Your task to perform on an android device: Open Chrome and go to the settings page Image 0: 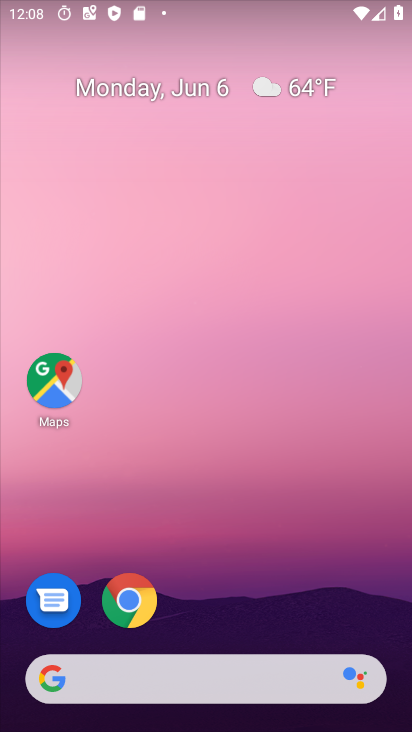
Step 0: drag from (263, 695) to (186, 153)
Your task to perform on an android device: Open Chrome and go to the settings page Image 1: 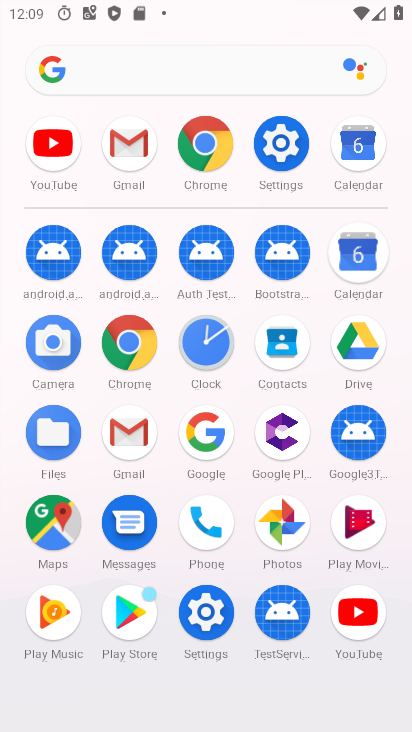
Step 1: click (205, 137)
Your task to perform on an android device: Open Chrome and go to the settings page Image 2: 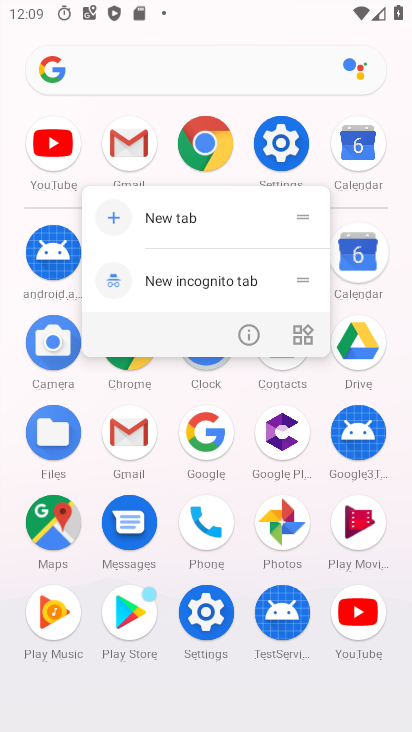
Step 2: click (211, 151)
Your task to perform on an android device: Open Chrome and go to the settings page Image 3: 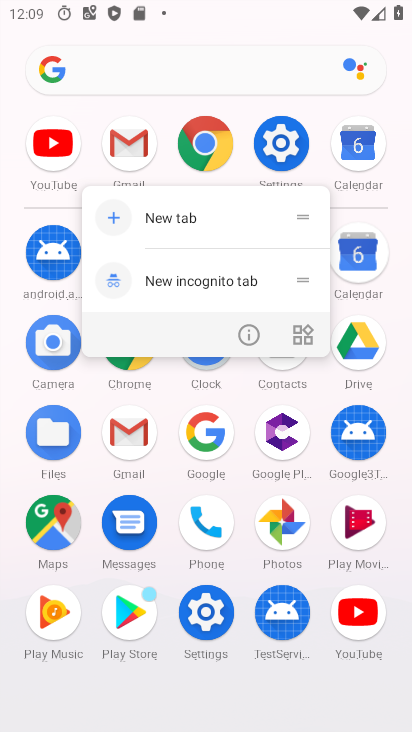
Step 3: click (210, 154)
Your task to perform on an android device: Open Chrome and go to the settings page Image 4: 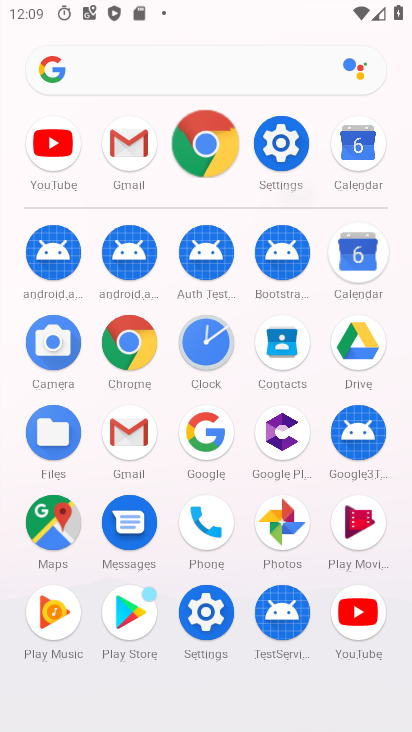
Step 4: click (197, 166)
Your task to perform on an android device: Open Chrome and go to the settings page Image 5: 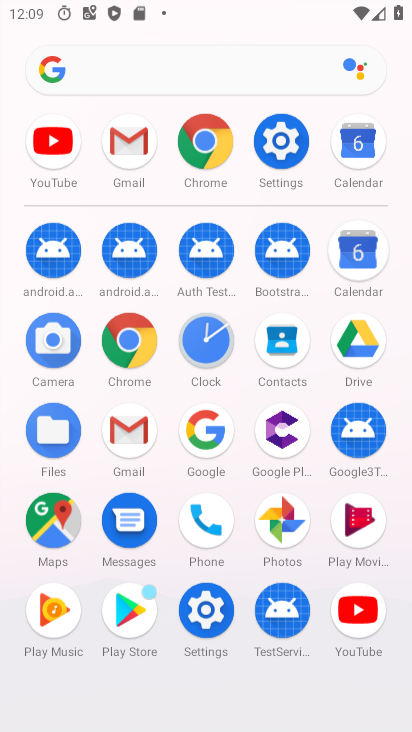
Step 5: click (201, 135)
Your task to perform on an android device: Open Chrome and go to the settings page Image 6: 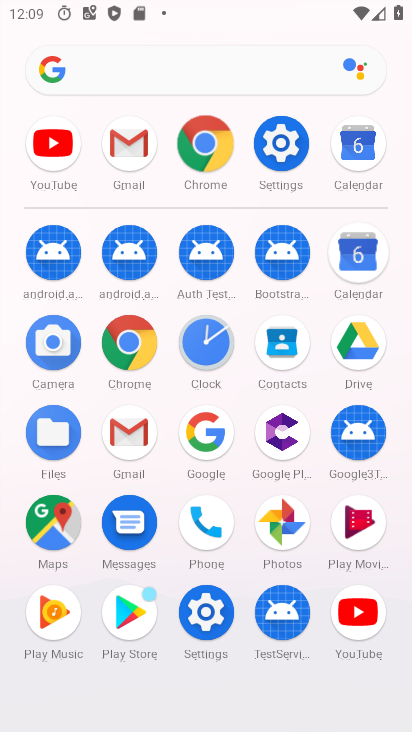
Step 6: click (197, 138)
Your task to perform on an android device: Open Chrome and go to the settings page Image 7: 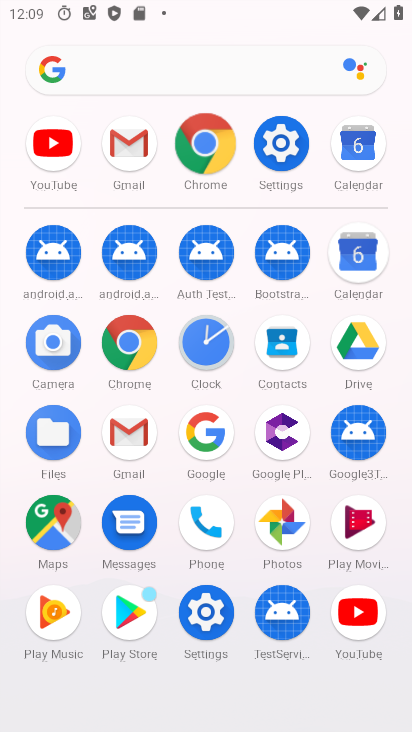
Step 7: click (201, 138)
Your task to perform on an android device: Open Chrome and go to the settings page Image 8: 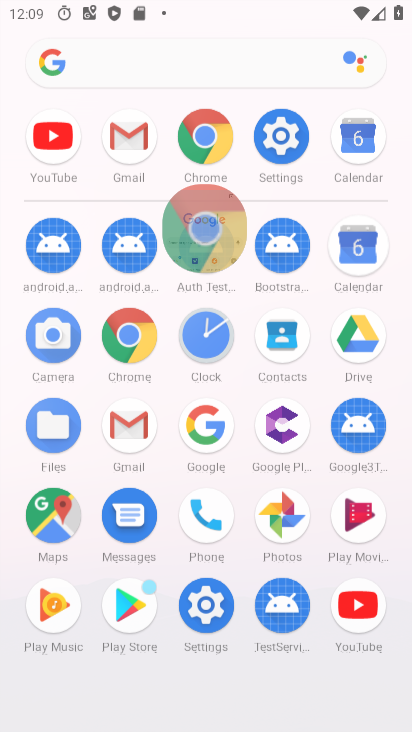
Step 8: click (190, 140)
Your task to perform on an android device: Open Chrome and go to the settings page Image 9: 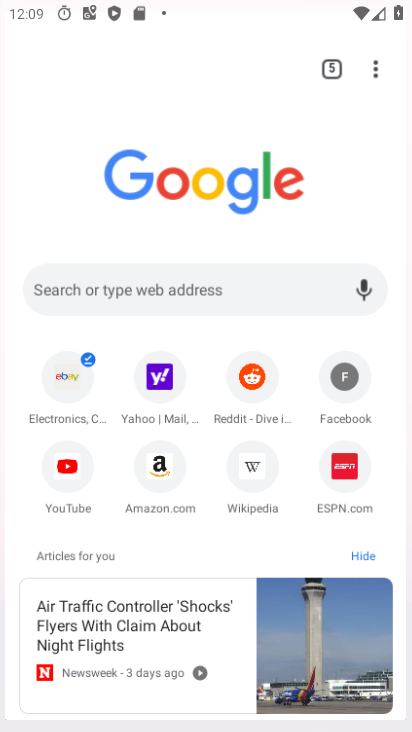
Step 9: click (192, 139)
Your task to perform on an android device: Open Chrome and go to the settings page Image 10: 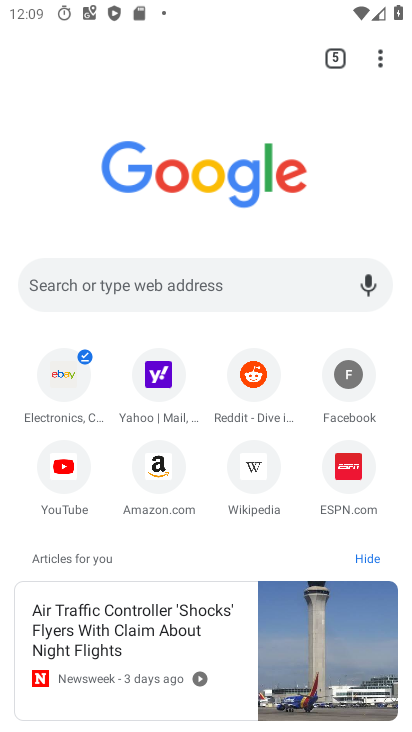
Step 10: click (195, 143)
Your task to perform on an android device: Open Chrome and go to the settings page Image 11: 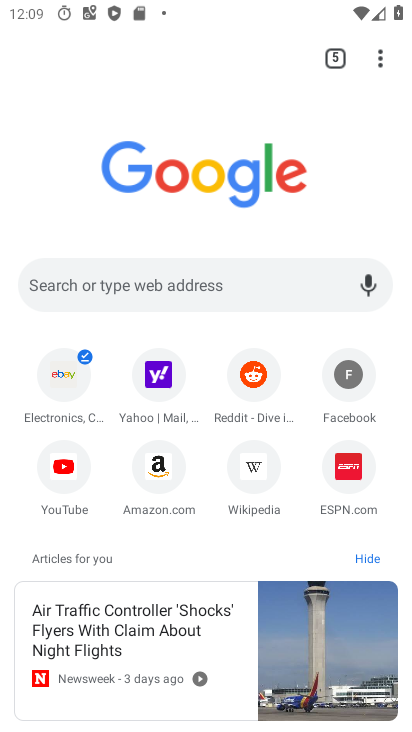
Step 11: click (192, 143)
Your task to perform on an android device: Open Chrome and go to the settings page Image 12: 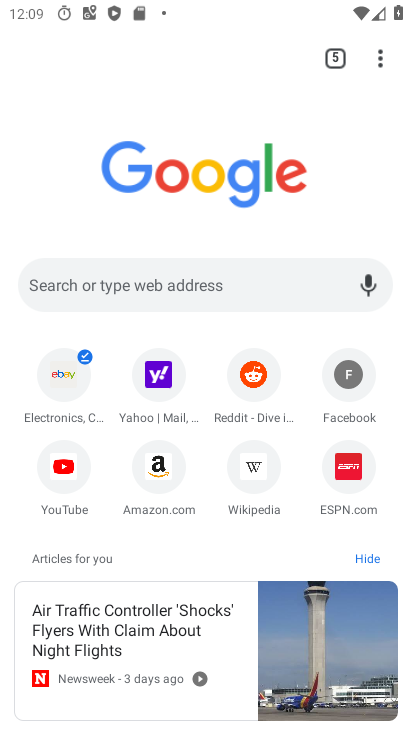
Step 12: drag from (386, 64) to (155, 486)
Your task to perform on an android device: Open Chrome and go to the settings page Image 13: 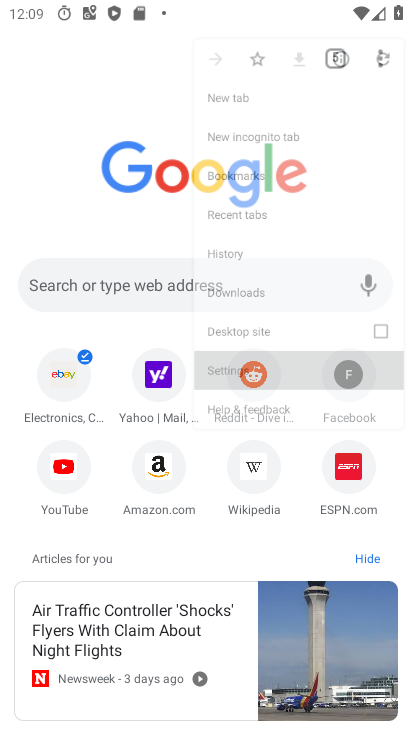
Step 13: click (161, 481)
Your task to perform on an android device: Open Chrome and go to the settings page Image 14: 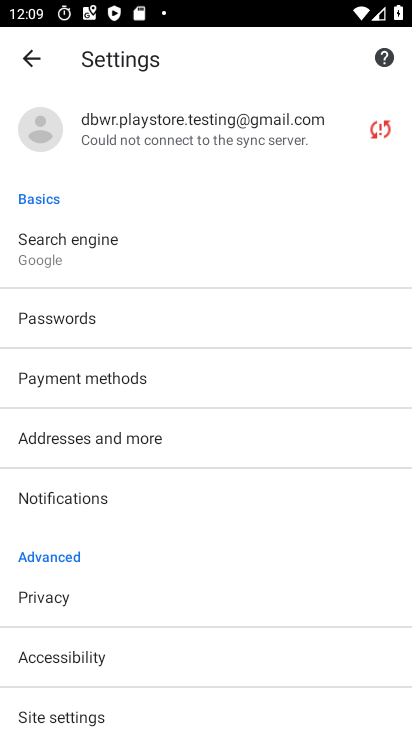
Step 14: task complete